Your task to perform on an android device: What's on my calendar tomorrow? Image 0: 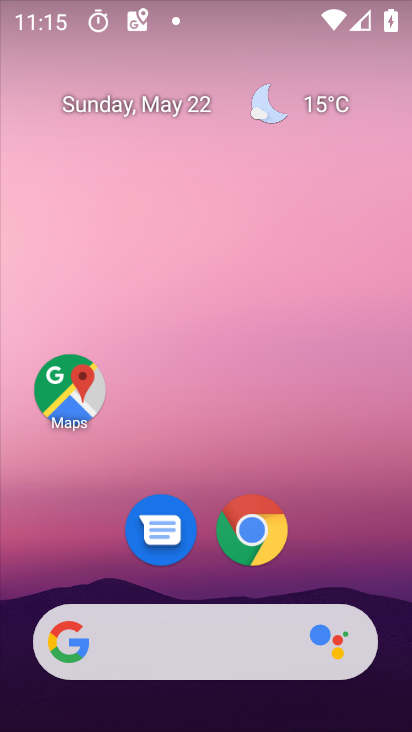
Step 0: drag from (322, 323) to (311, 223)
Your task to perform on an android device: What's on my calendar tomorrow? Image 1: 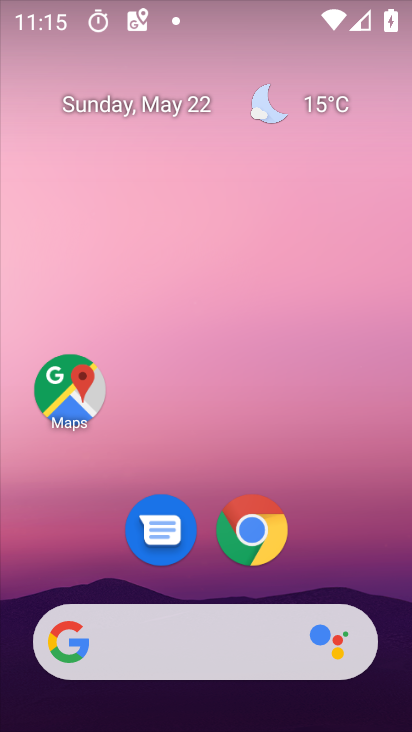
Step 1: drag from (397, 708) to (390, 237)
Your task to perform on an android device: What's on my calendar tomorrow? Image 2: 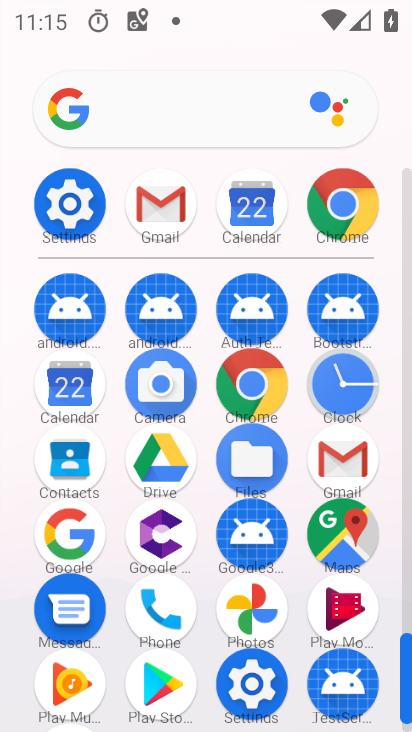
Step 2: click (71, 384)
Your task to perform on an android device: What's on my calendar tomorrow? Image 3: 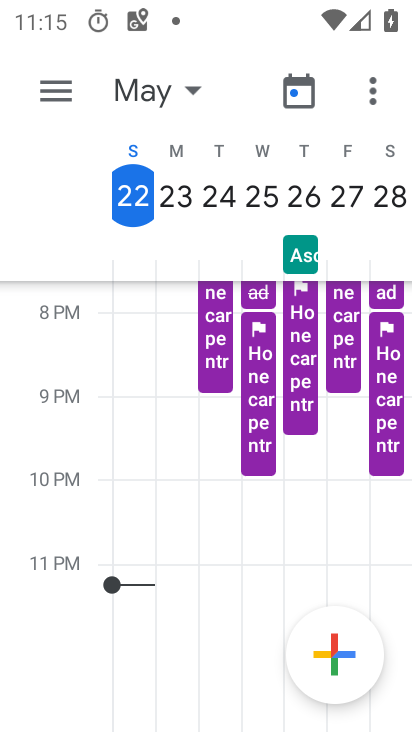
Step 3: click (182, 196)
Your task to perform on an android device: What's on my calendar tomorrow? Image 4: 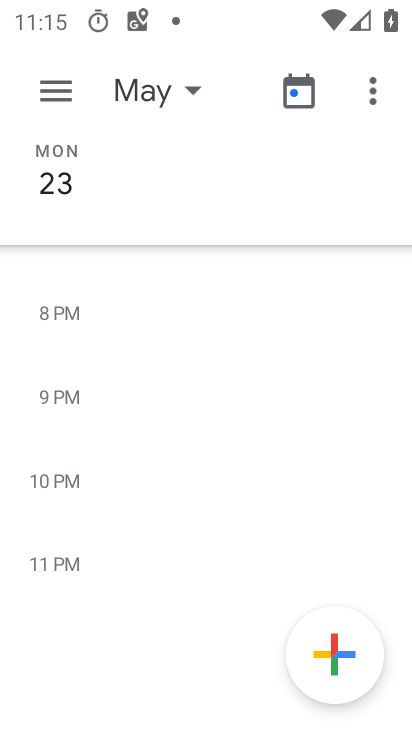
Step 4: click (187, 83)
Your task to perform on an android device: What's on my calendar tomorrow? Image 5: 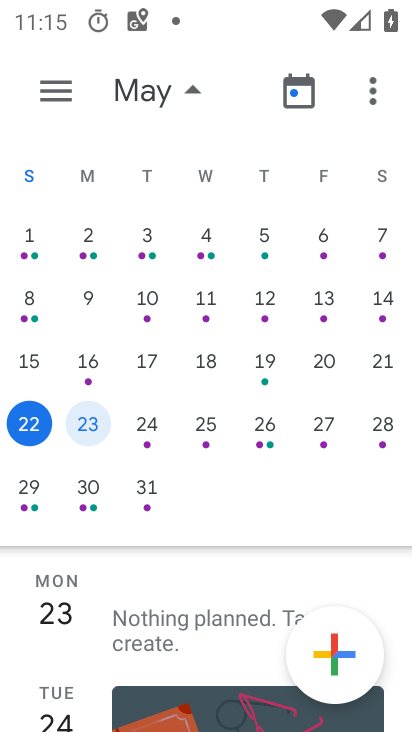
Step 5: click (98, 414)
Your task to perform on an android device: What's on my calendar tomorrow? Image 6: 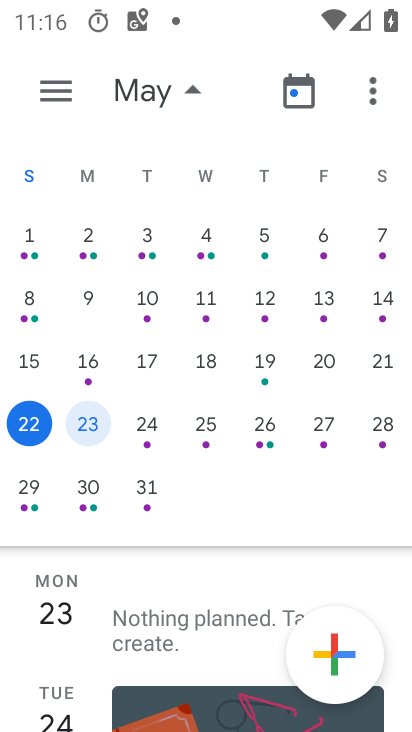
Step 6: click (59, 91)
Your task to perform on an android device: What's on my calendar tomorrow? Image 7: 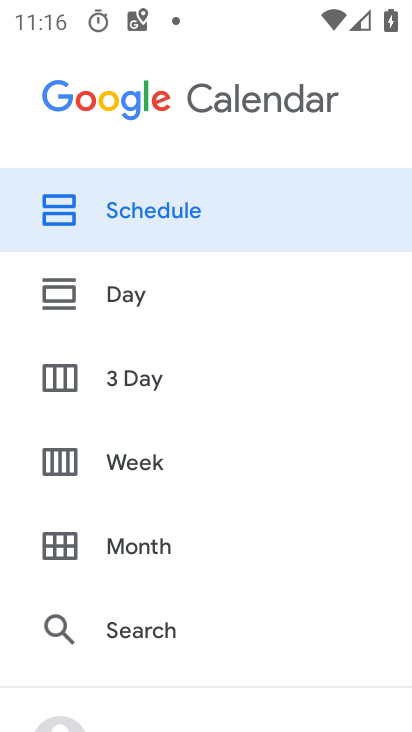
Step 7: click (98, 276)
Your task to perform on an android device: What's on my calendar tomorrow? Image 8: 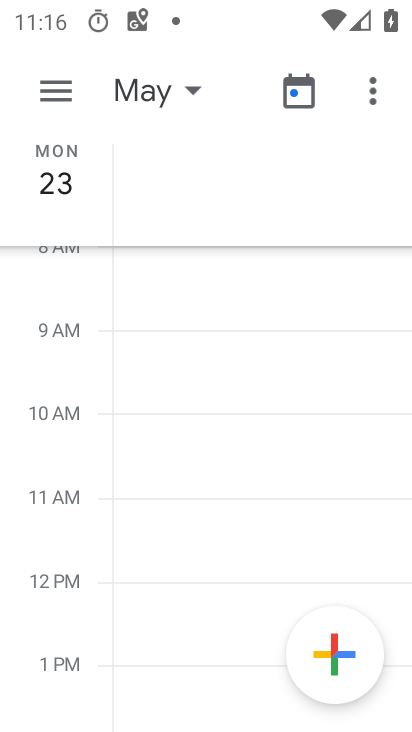
Step 8: task complete